Your task to perform on an android device: Go to CNN.com Image 0: 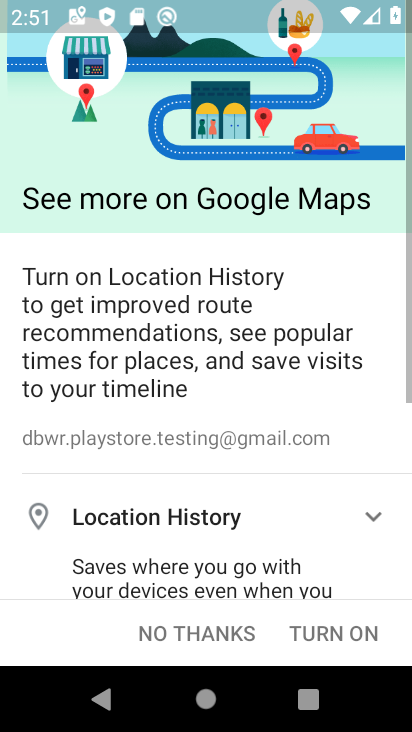
Step 0: press home button
Your task to perform on an android device: Go to CNN.com Image 1: 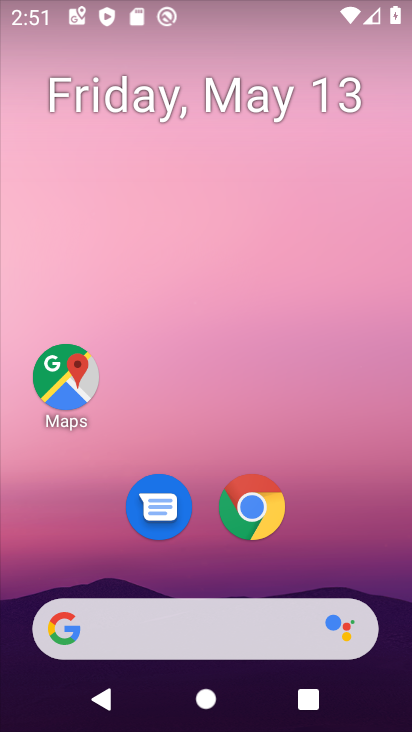
Step 1: click (250, 522)
Your task to perform on an android device: Go to CNN.com Image 2: 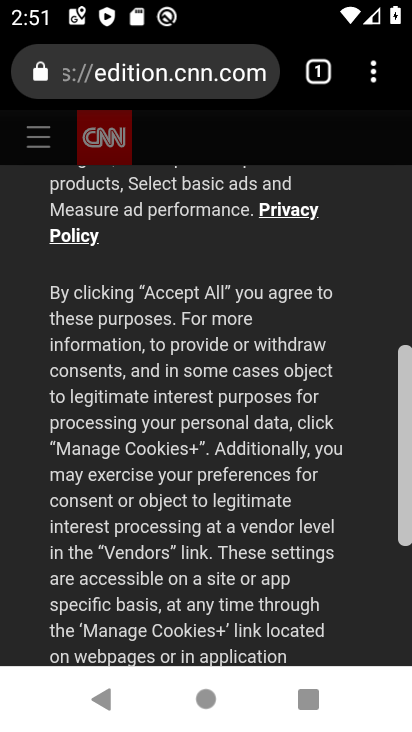
Step 2: task complete